Your task to perform on an android device: turn on showing notifications on the lock screen Image 0: 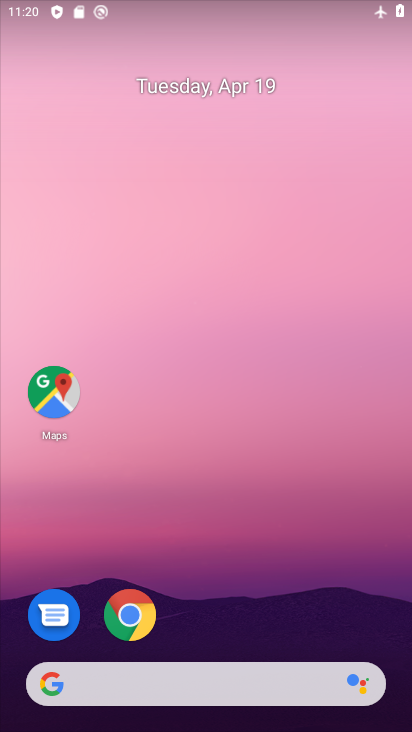
Step 0: drag from (214, 619) to (216, 149)
Your task to perform on an android device: turn on showing notifications on the lock screen Image 1: 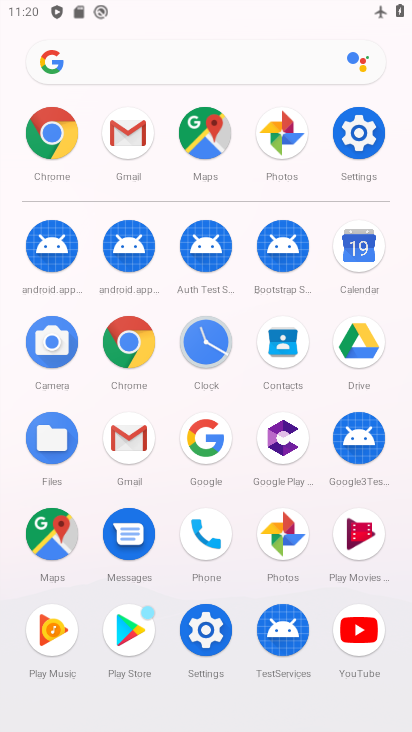
Step 1: click (350, 120)
Your task to perform on an android device: turn on showing notifications on the lock screen Image 2: 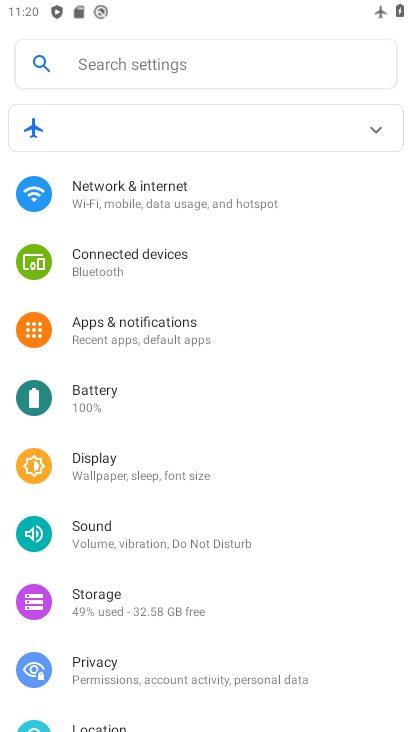
Step 2: drag from (220, 571) to (249, 275)
Your task to perform on an android device: turn on showing notifications on the lock screen Image 3: 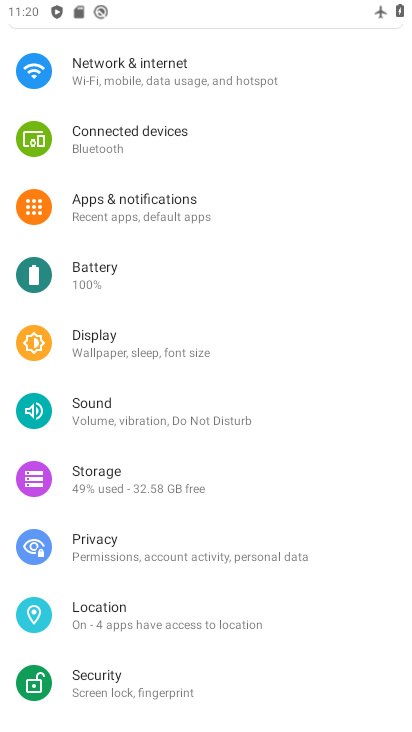
Step 3: click (183, 206)
Your task to perform on an android device: turn on showing notifications on the lock screen Image 4: 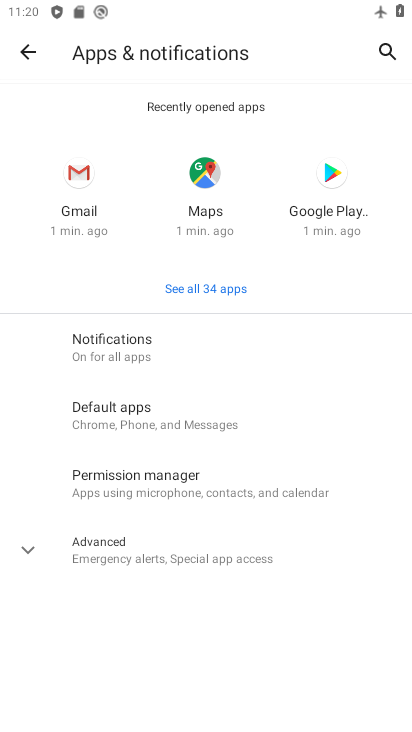
Step 4: click (137, 353)
Your task to perform on an android device: turn on showing notifications on the lock screen Image 5: 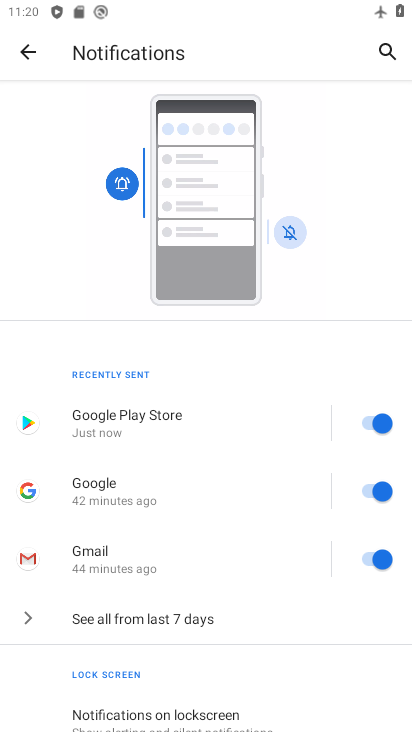
Step 5: drag from (236, 669) to (279, 267)
Your task to perform on an android device: turn on showing notifications on the lock screen Image 6: 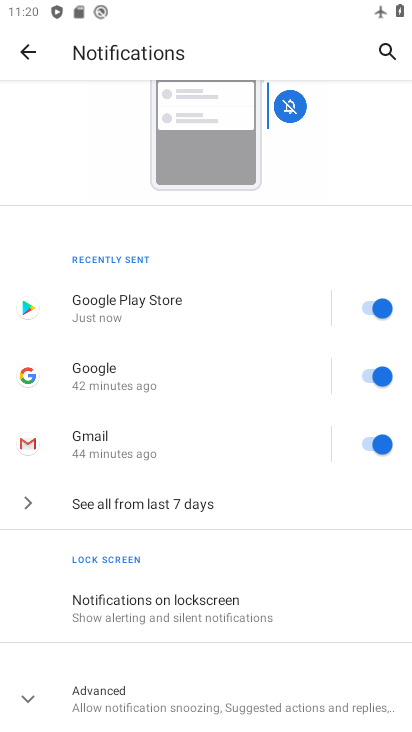
Step 6: click (226, 608)
Your task to perform on an android device: turn on showing notifications on the lock screen Image 7: 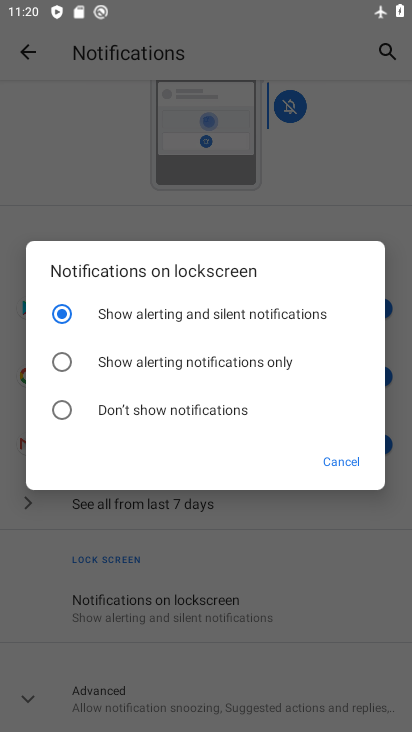
Step 7: task complete